Your task to perform on an android device: search for starred emails in the gmail app Image 0: 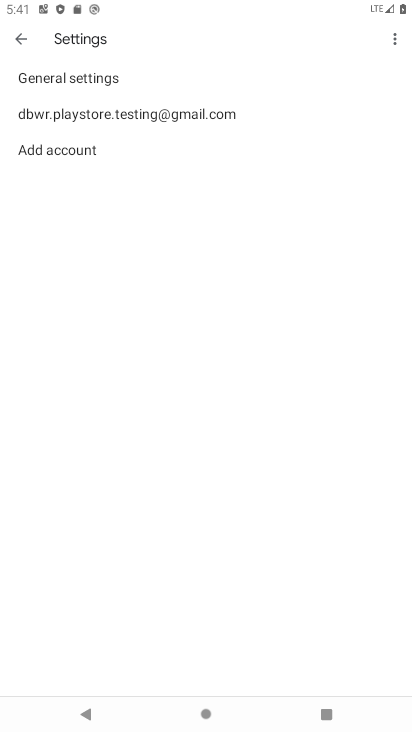
Step 0: press home button
Your task to perform on an android device: search for starred emails in the gmail app Image 1: 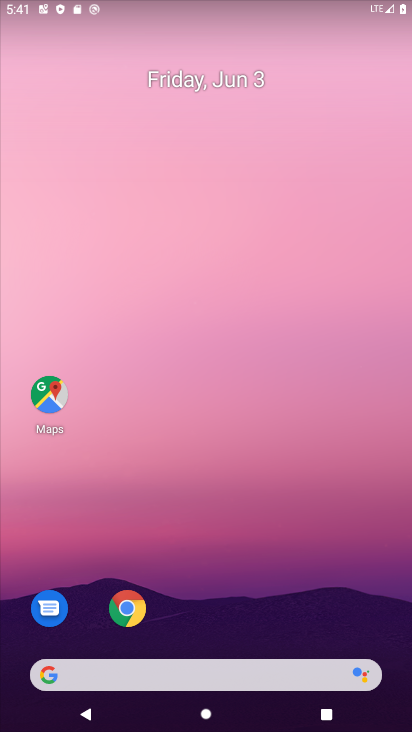
Step 1: drag from (210, 546) to (283, 133)
Your task to perform on an android device: search for starred emails in the gmail app Image 2: 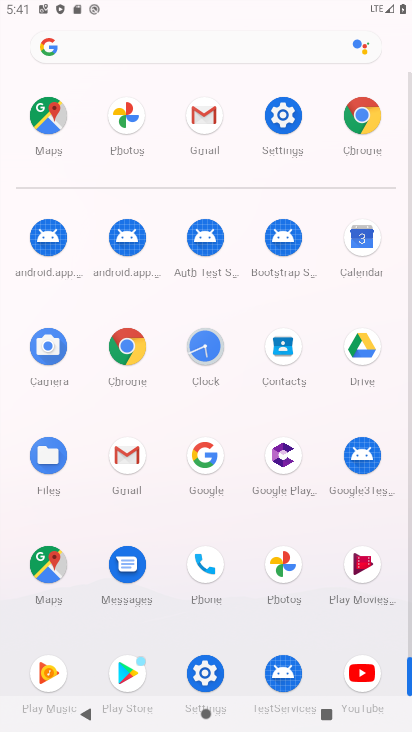
Step 2: click (211, 112)
Your task to perform on an android device: search for starred emails in the gmail app Image 3: 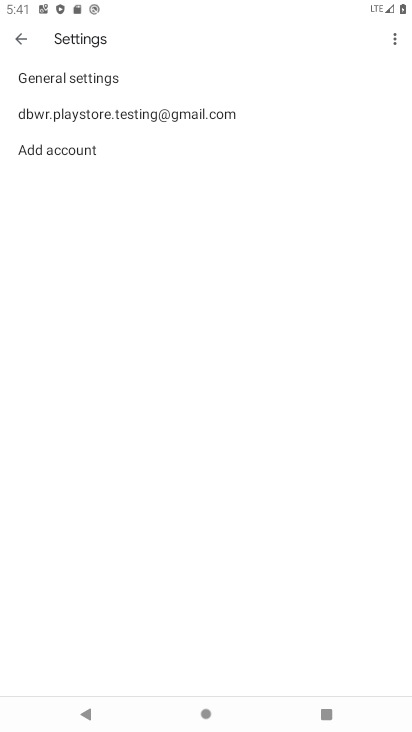
Step 3: click (16, 31)
Your task to perform on an android device: search for starred emails in the gmail app Image 4: 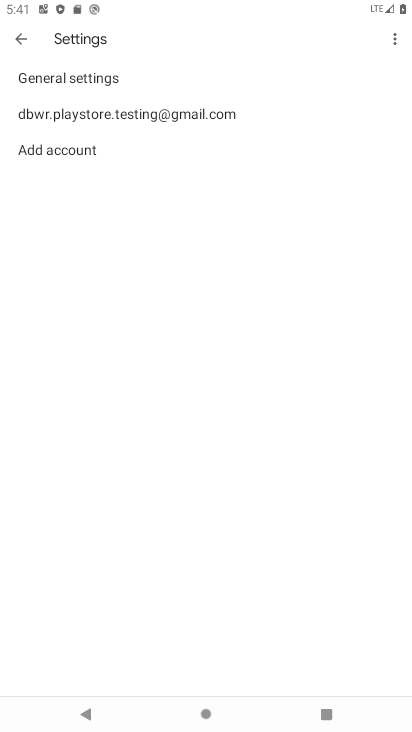
Step 4: click (16, 31)
Your task to perform on an android device: search for starred emails in the gmail app Image 5: 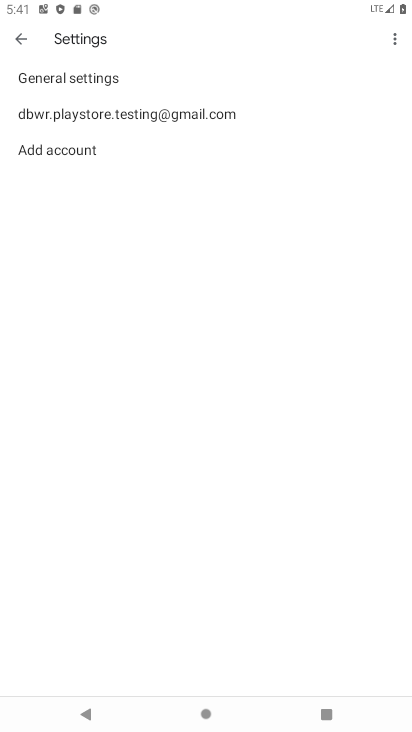
Step 5: click (16, 31)
Your task to perform on an android device: search for starred emails in the gmail app Image 6: 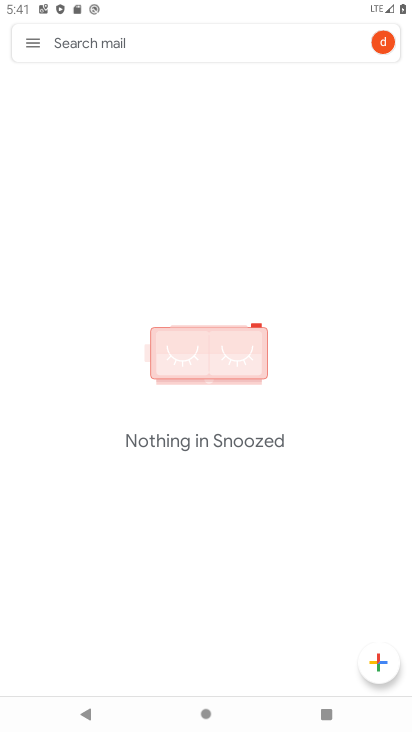
Step 6: click (16, 31)
Your task to perform on an android device: search for starred emails in the gmail app Image 7: 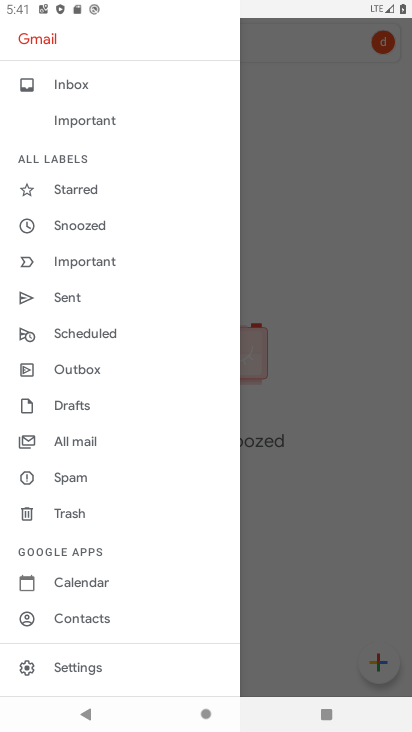
Step 7: click (81, 192)
Your task to perform on an android device: search for starred emails in the gmail app Image 8: 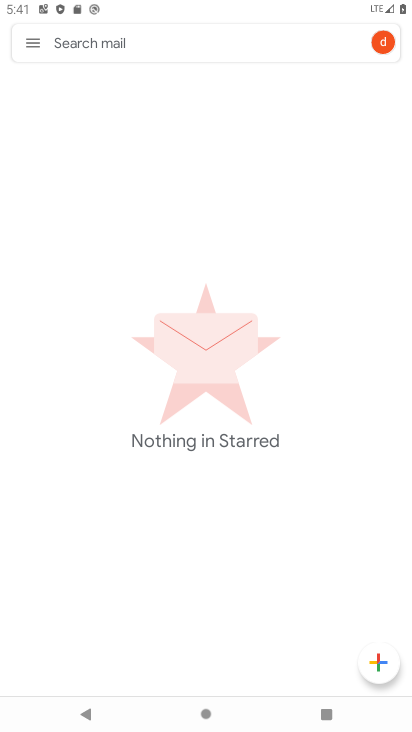
Step 8: task complete